Your task to perform on an android device: turn on translation in the chrome app Image 0: 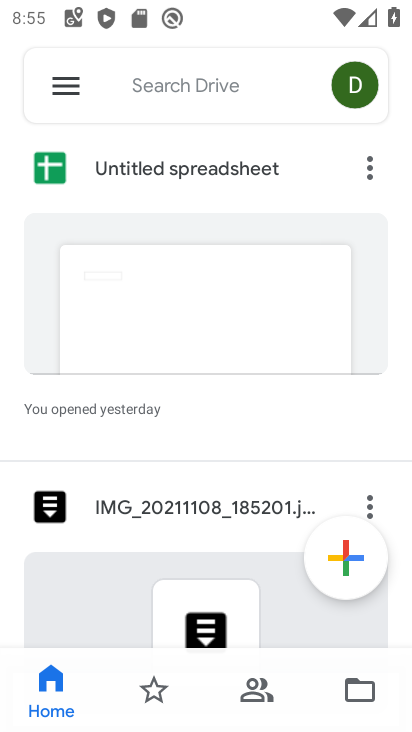
Step 0: press home button
Your task to perform on an android device: turn on translation in the chrome app Image 1: 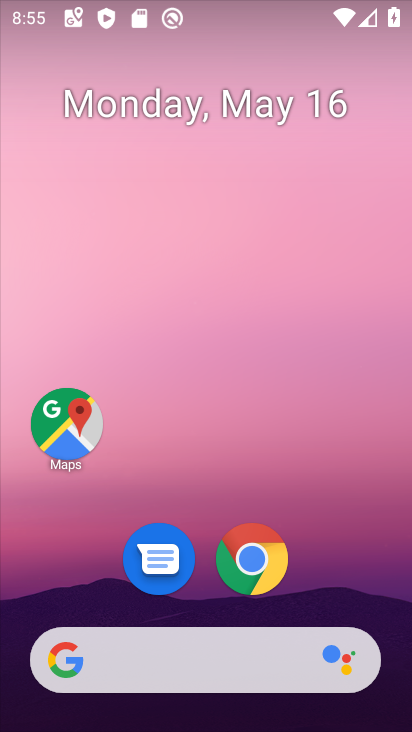
Step 1: click (251, 546)
Your task to perform on an android device: turn on translation in the chrome app Image 2: 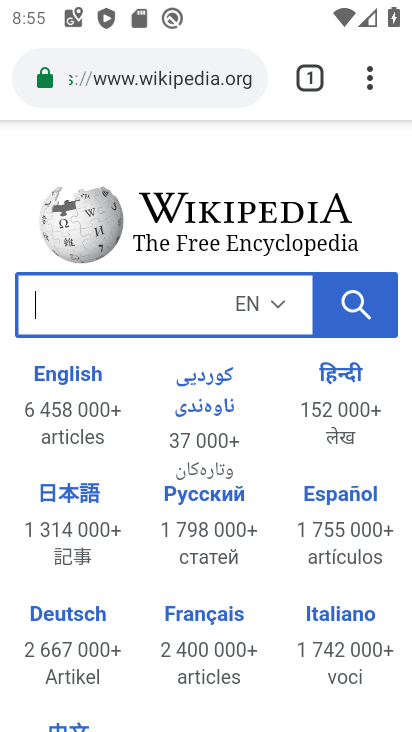
Step 2: click (364, 82)
Your task to perform on an android device: turn on translation in the chrome app Image 3: 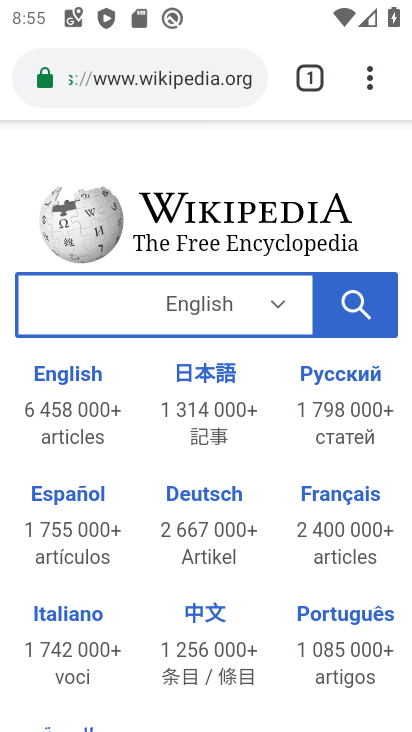
Step 3: click (368, 84)
Your task to perform on an android device: turn on translation in the chrome app Image 4: 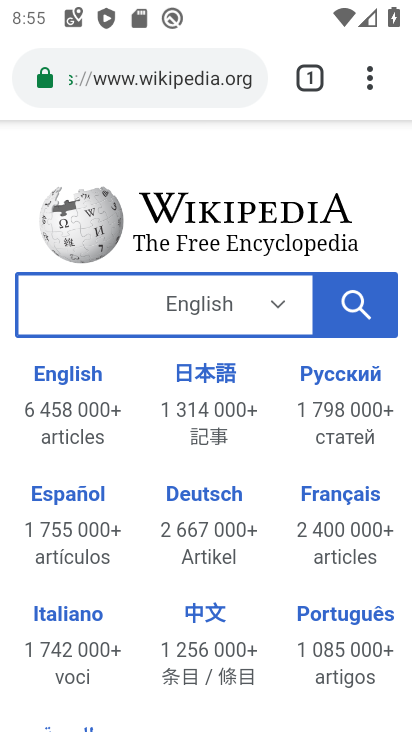
Step 4: click (381, 94)
Your task to perform on an android device: turn on translation in the chrome app Image 5: 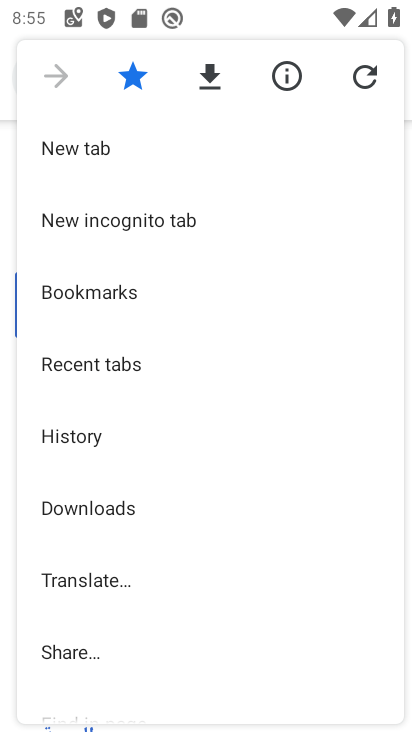
Step 5: drag from (119, 493) to (126, 234)
Your task to perform on an android device: turn on translation in the chrome app Image 6: 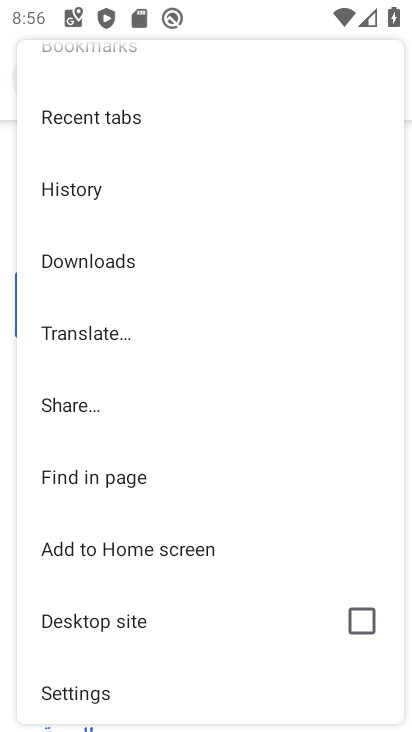
Step 6: click (95, 682)
Your task to perform on an android device: turn on translation in the chrome app Image 7: 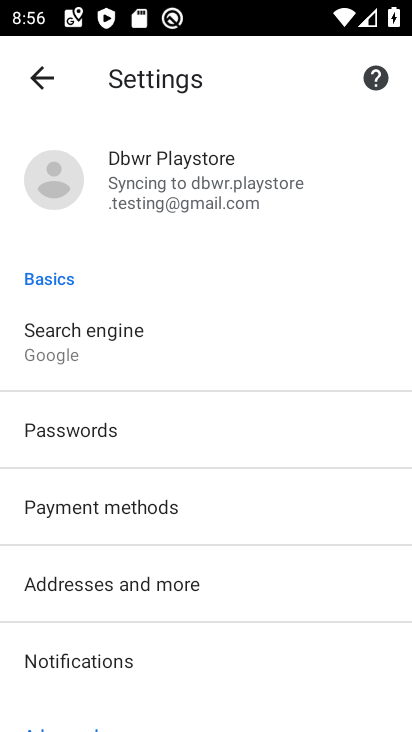
Step 7: drag from (173, 674) to (182, 479)
Your task to perform on an android device: turn on translation in the chrome app Image 8: 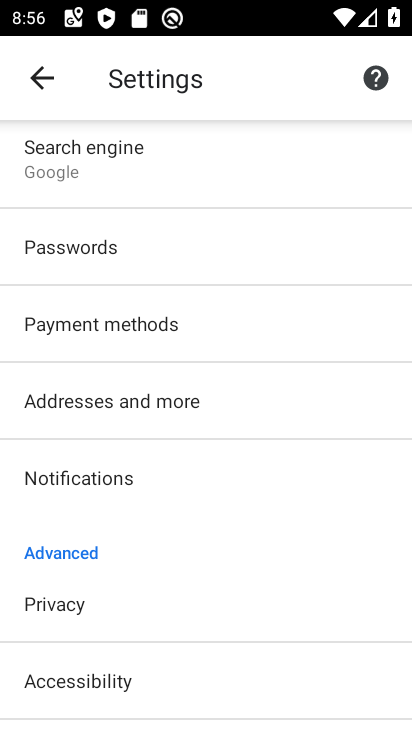
Step 8: drag from (155, 627) to (162, 528)
Your task to perform on an android device: turn on translation in the chrome app Image 9: 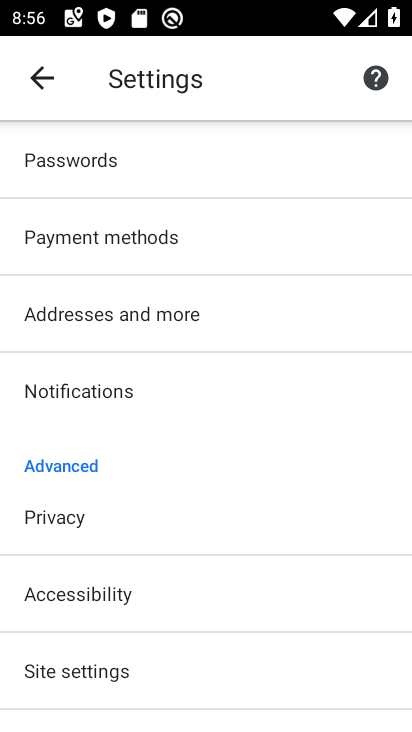
Step 9: drag from (125, 678) to (167, 528)
Your task to perform on an android device: turn on translation in the chrome app Image 10: 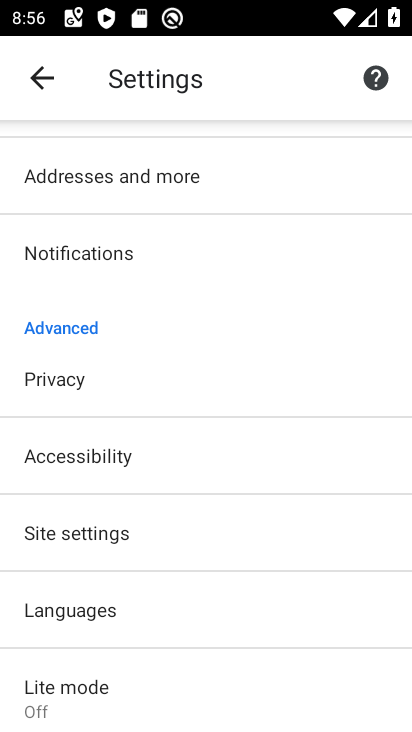
Step 10: click (113, 612)
Your task to perform on an android device: turn on translation in the chrome app Image 11: 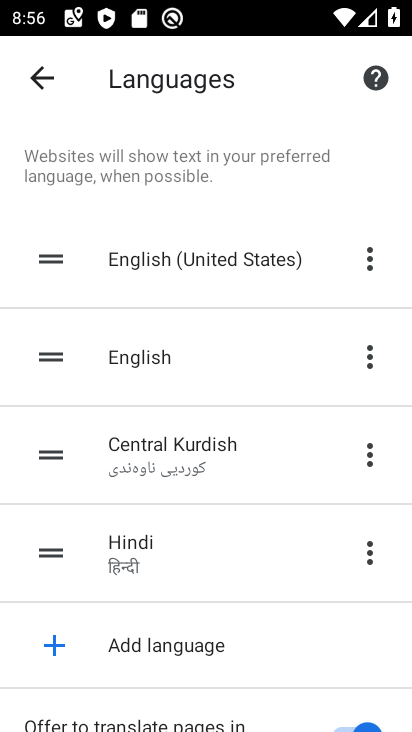
Step 11: task complete